Your task to perform on an android device: turn on airplane mode Image 0: 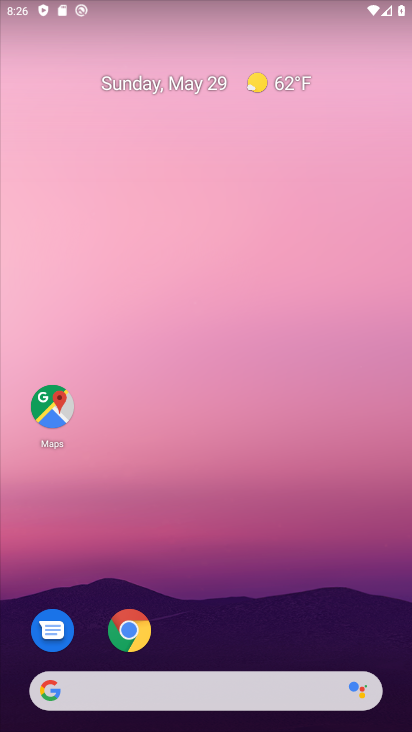
Step 0: drag from (391, 694) to (396, 179)
Your task to perform on an android device: turn on airplane mode Image 1: 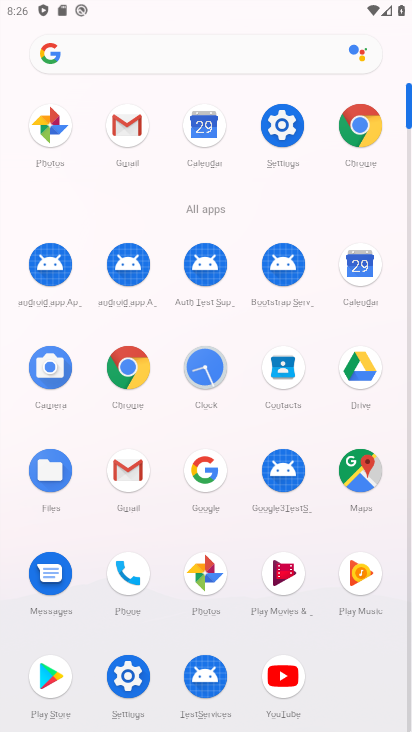
Step 1: click (282, 124)
Your task to perform on an android device: turn on airplane mode Image 2: 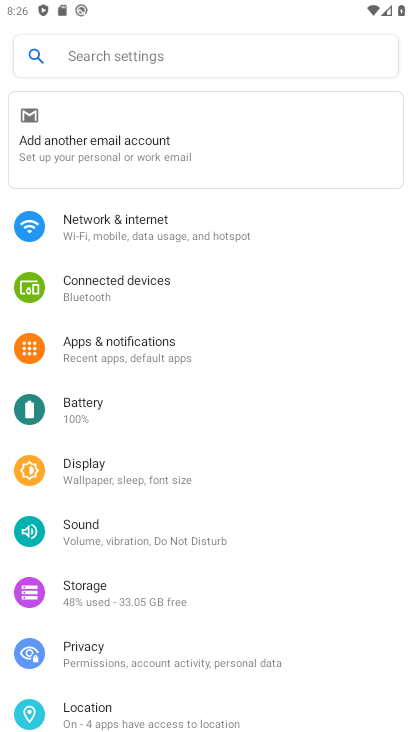
Step 2: click (95, 235)
Your task to perform on an android device: turn on airplane mode Image 3: 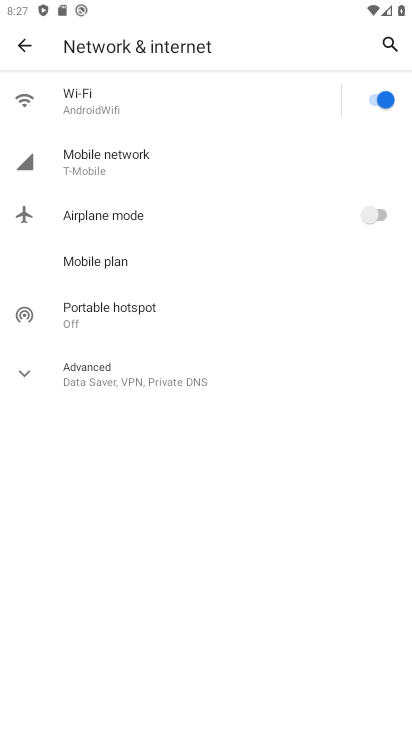
Step 3: click (386, 213)
Your task to perform on an android device: turn on airplane mode Image 4: 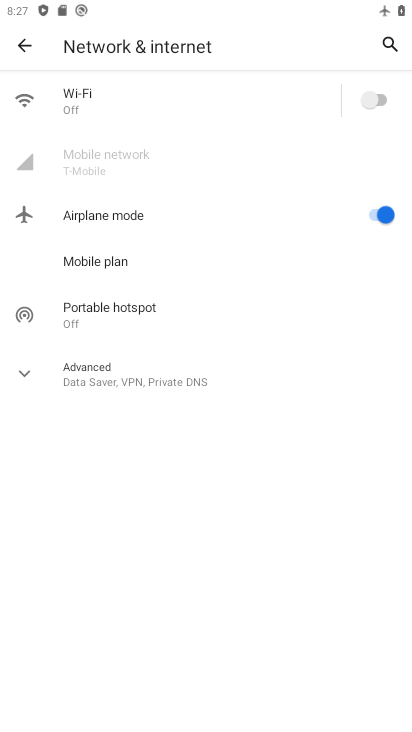
Step 4: task complete